Your task to perform on an android device: turn off notifications settings in the gmail app Image 0: 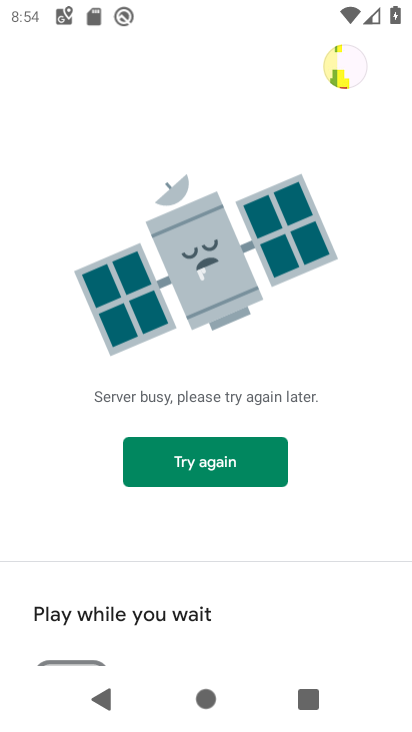
Step 0: press home button
Your task to perform on an android device: turn off notifications settings in the gmail app Image 1: 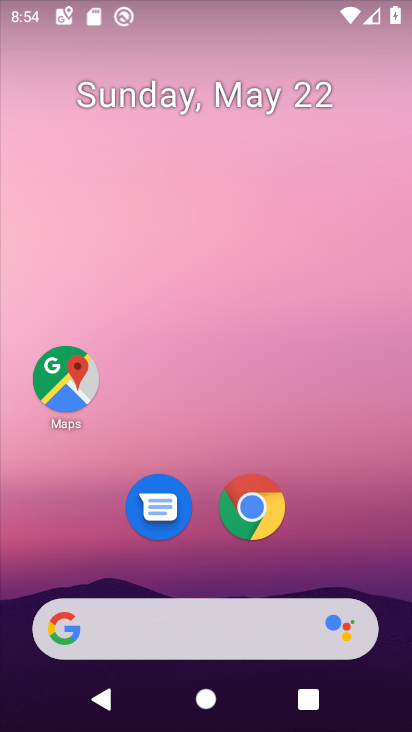
Step 1: drag from (216, 567) to (235, 171)
Your task to perform on an android device: turn off notifications settings in the gmail app Image 2: 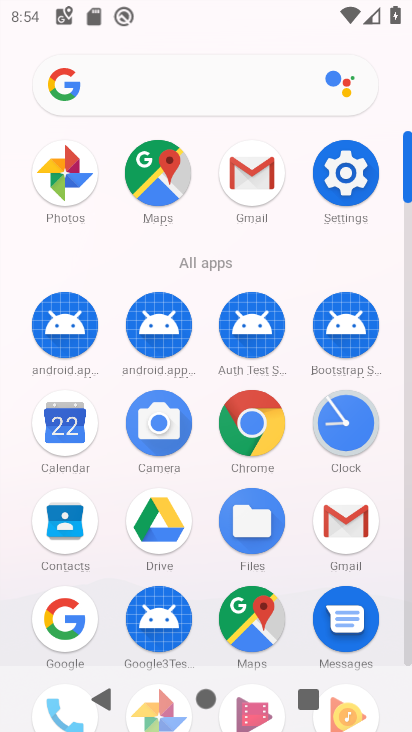
Step 2: click (333, 519)
Your task to perform on an android device: turn off notifications settings in the gmail app Image 3: 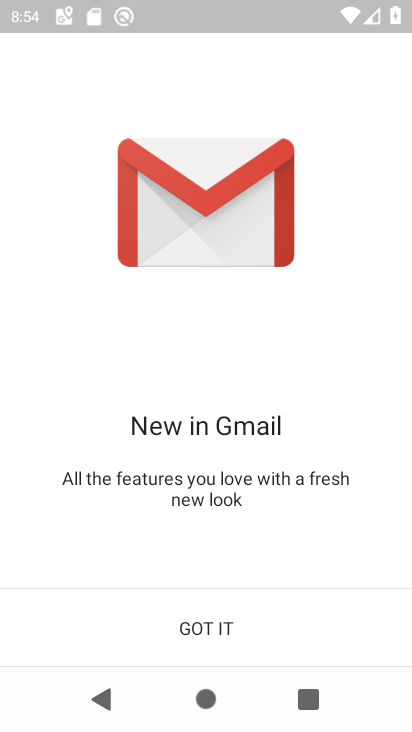
Step 3: click (202, 645)
Your task to perform on an android device: turn off notifications settings in the gmail app Image 4: 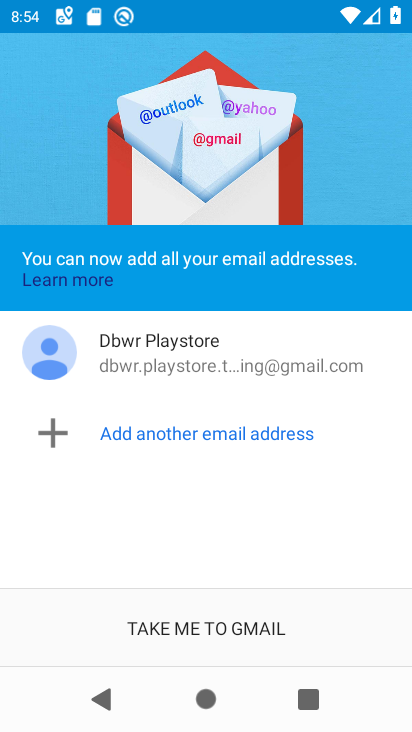
Step 4: click (202, 645)
Your task to perform on an android device: turn off notifications settings in the gmail app Image 5: 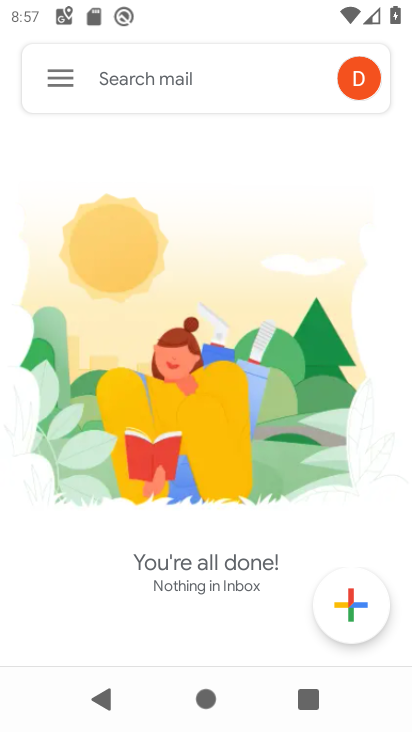
Step 5: click (60, 85)
Your task to perform on an android device: turn off notifications settings in the gmail app Image 6: 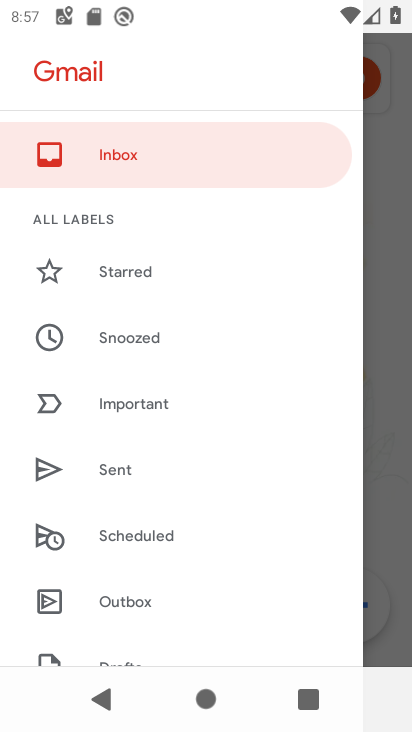
Step 6: drag from (120, 638) to (235, 47)
Your task to perform on an android device: turn off notifications settings in the gmail app Image 7: 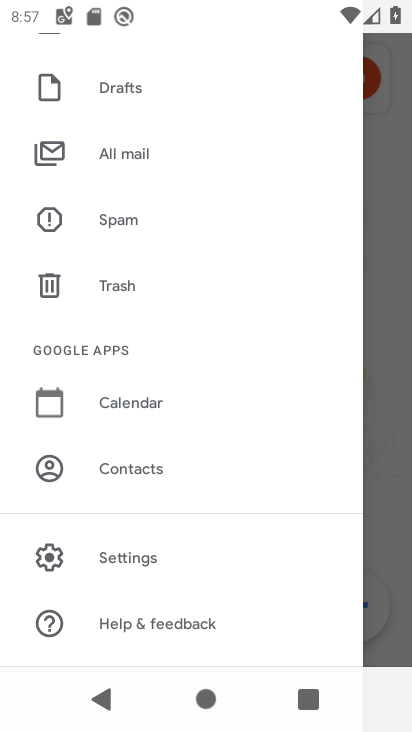
Step 7: click (173, 548)
Your task to perform on an android device: turn off notifications settings in the gmail app Image 8: 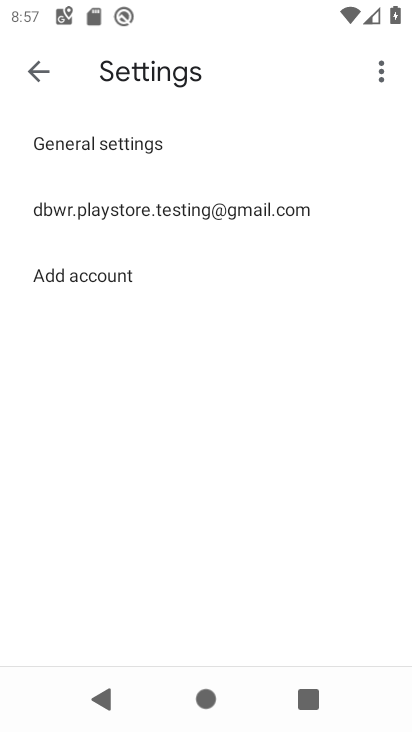
Step 8: click (170, 207)
Your task to perform on an android device: turn off notifications settings in the gmail app Image 9: 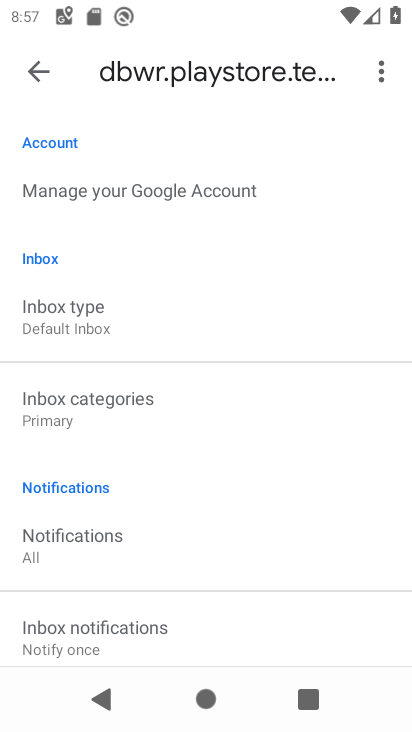
Step 9: click (152, 531)
Your task to perform on an android device: turn off notifications settings in the gmail app Image 10: 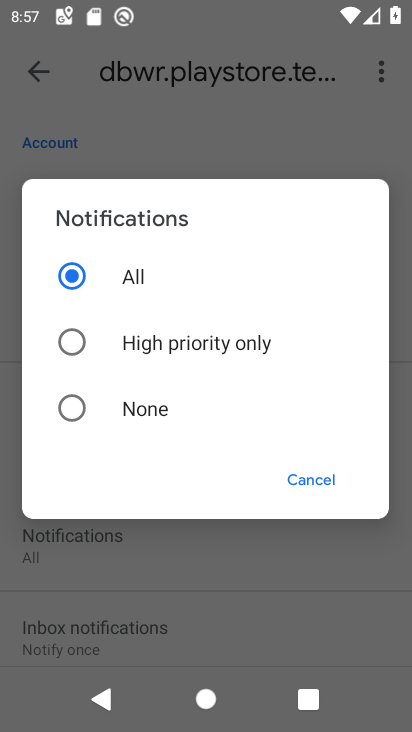
Step 10: click (173, 417)
Your task to perform on an android device: turn off notifications settings in the gmail app Image 11: 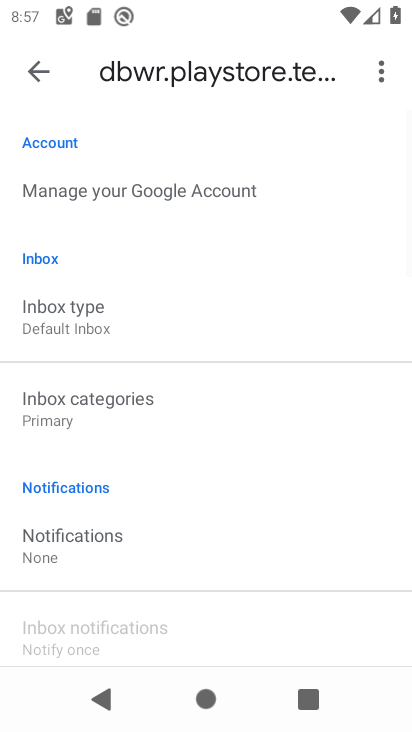
Step 11: task complete